Your task to perform on an android device: Clear the cart on walmart. Search for "dell alienware" on walmart, select the first entry, add it to the cart, then select checkout. Image 0: 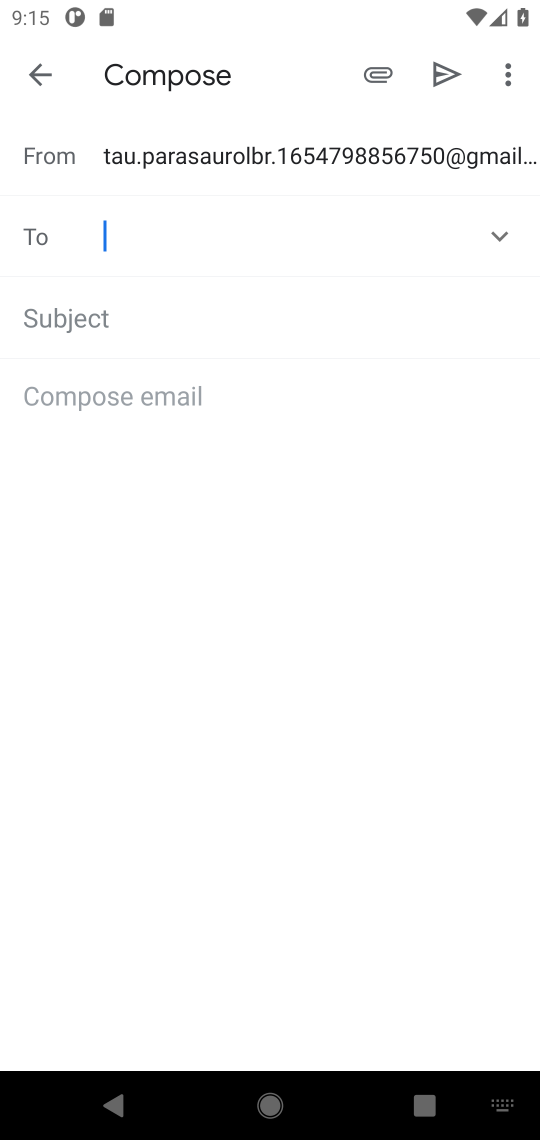
Step 0: press home button
Your task to perform on an android device: Clear the cart on walmart. Search for "dell alienware" on walmart, select the first entry, add it to the cart, then select checkout. Image 1: 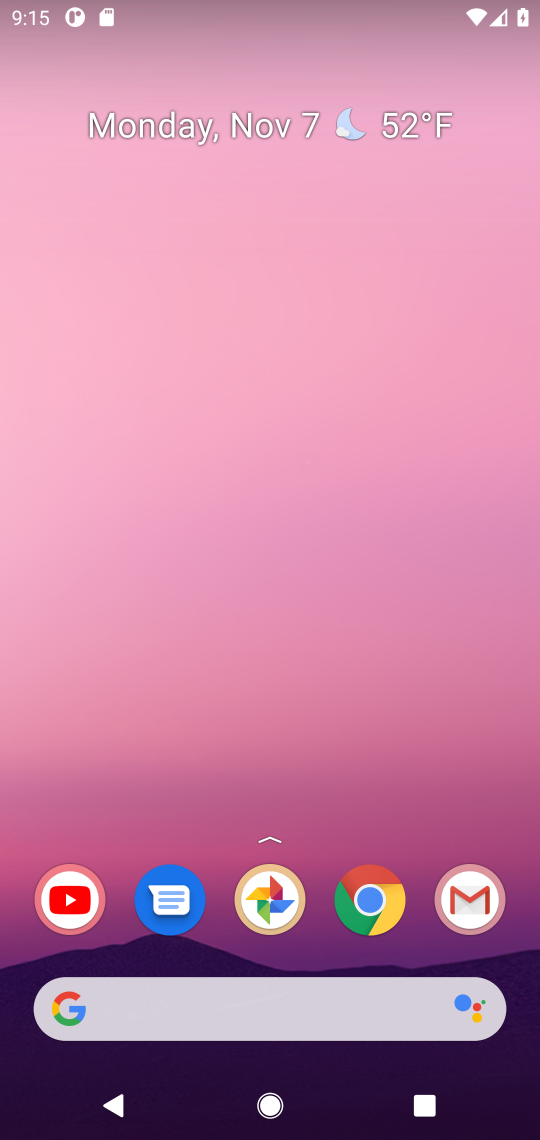
Step 1: click (320, 1020)
Your task to perform on an android device: Clear the cart on walmart. Search for "dell alienware" on walmart, select the first entry, add it to the cart, then select checkout. Image 2: 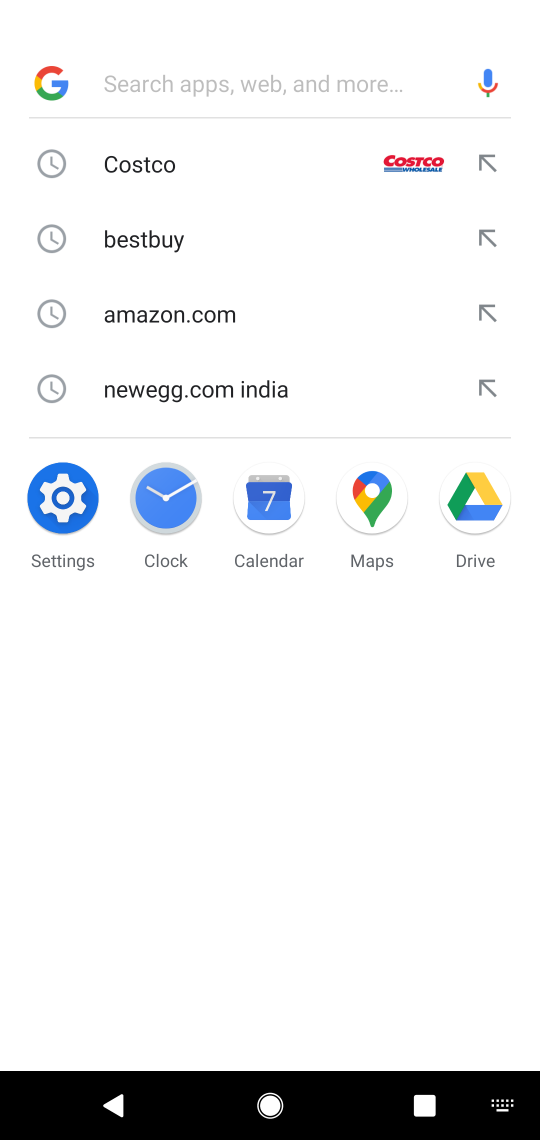
Step 2: type "walmart"
Your task to perform on an android device: Clear the cart on walmart. Search for "dell alienware" on walmart, select the first entry, add it to the cart, then select checkout. Image 3: 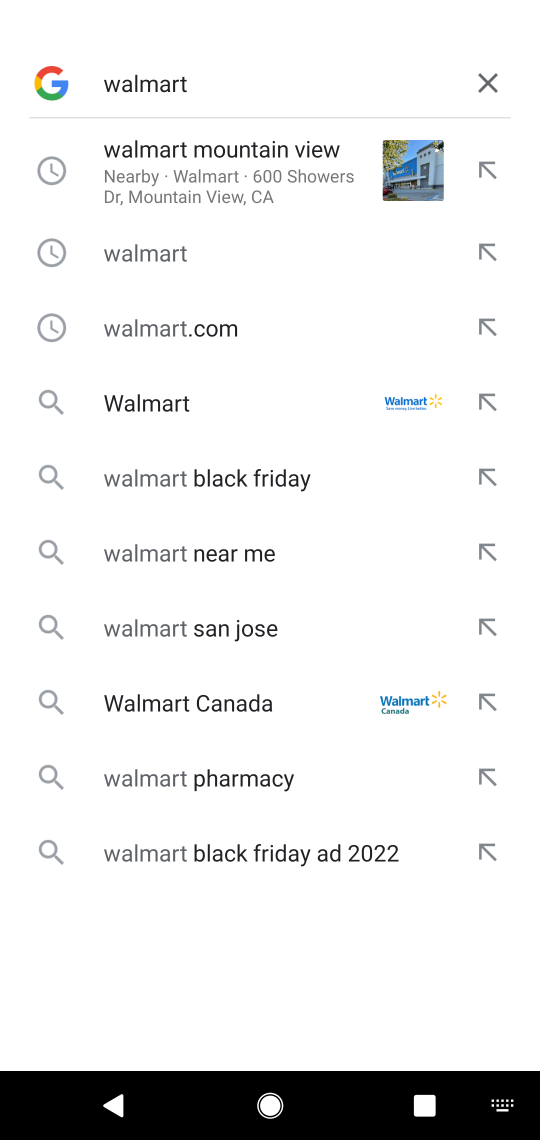
Step 3: click (133, 163)
Your task to perform on an android device: Clear the cart on walmart. Search for "dell alienware" on walmart, select the first entry, add it to the cart, then select checkout. Image 4: 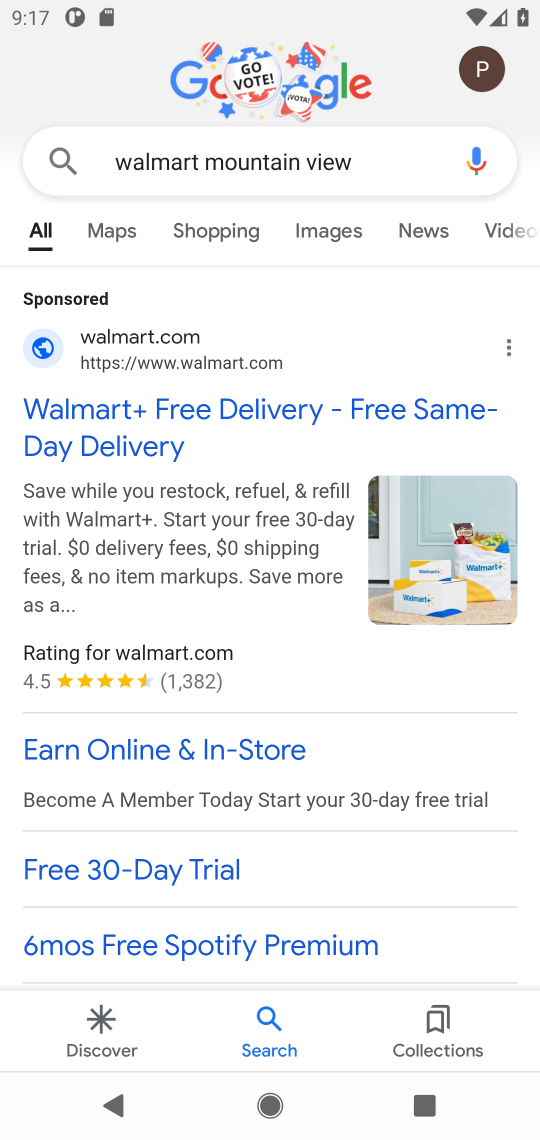
Step 4: click (304, 406)
Your task to perform on an android device: Clear the cart on walmart. Search for "dell alienware" on walmart, select the first entry, add it to the cart, then select checkout. Image 5: 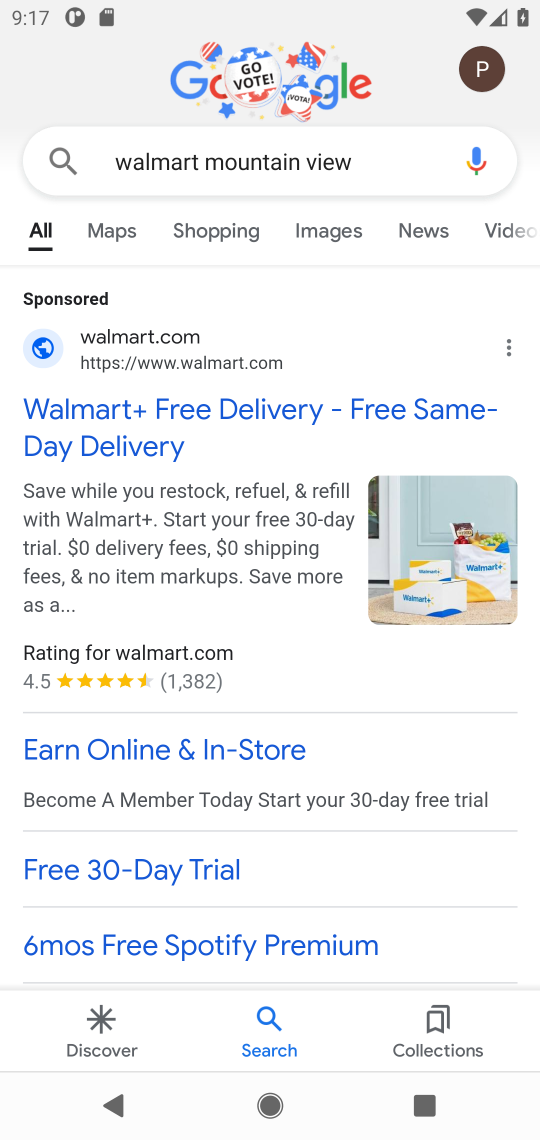
Step 5: task complete